Your task to perform on an android device: turn on bluetooth scan Image 0: 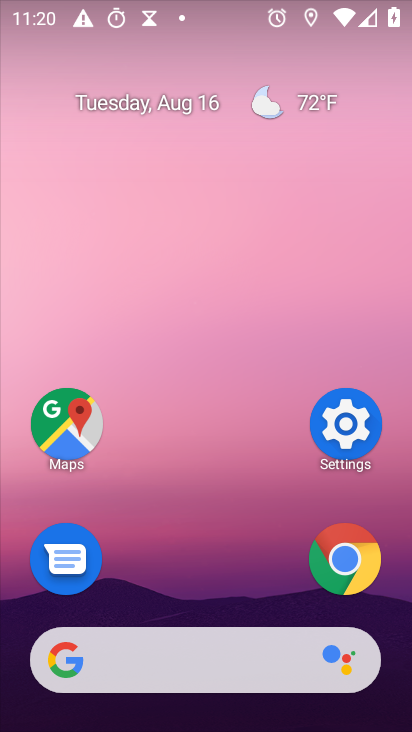
Step 0: click (346, 424)
Your task to perform on an android device: turn on bluetooth scan Image 1: 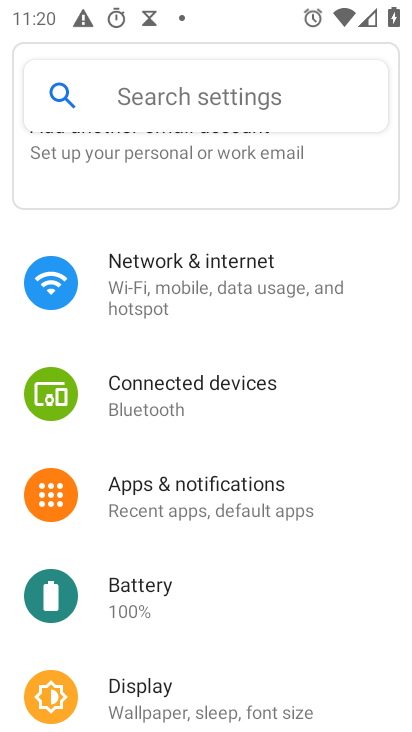
Step 1: drag from (198, 611) to (358, 139)
Your task to perform on an android device: turn on bluetooth scan Image 2: 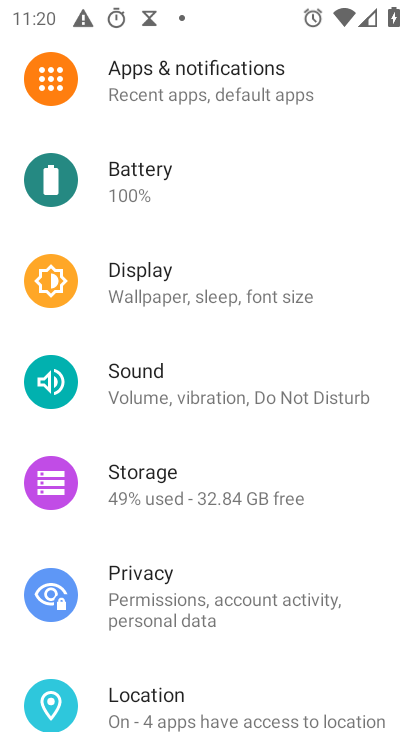
Step 2: drag from (213, 678) to (326, 207)
Your task to perform on an android device: turn on bluetooth scan Image 3: 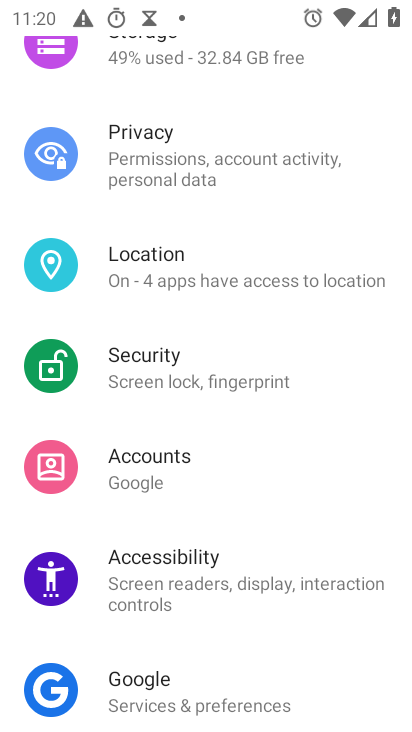
Step 3: click (176, 276)
Your task to perform on an android device: turn on bluetooth scan Image 4: 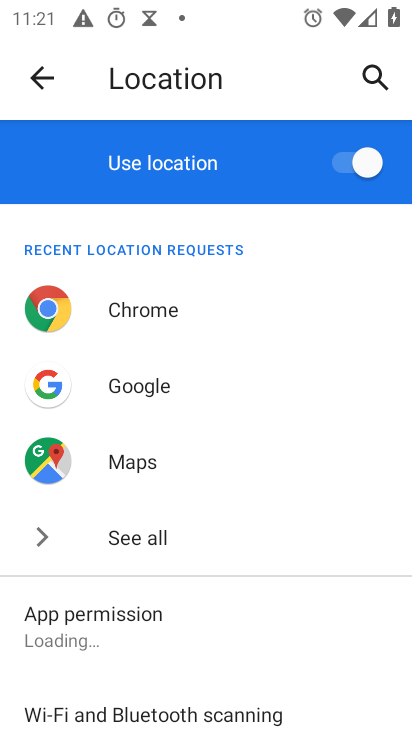
Step 4: drag from (233, 572) to (361, 73)
Your task to perform on an android device: turn on bluetooth scan Image 5: 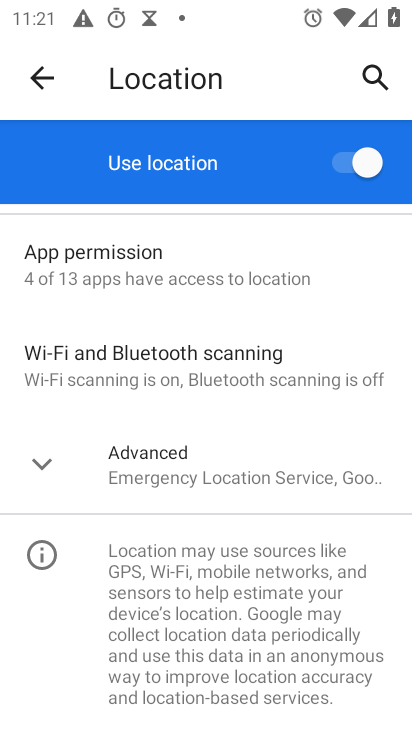
Step 5: click (172, 356)
Your task to perform on an android device: turn on bluetooth scan Image 6: 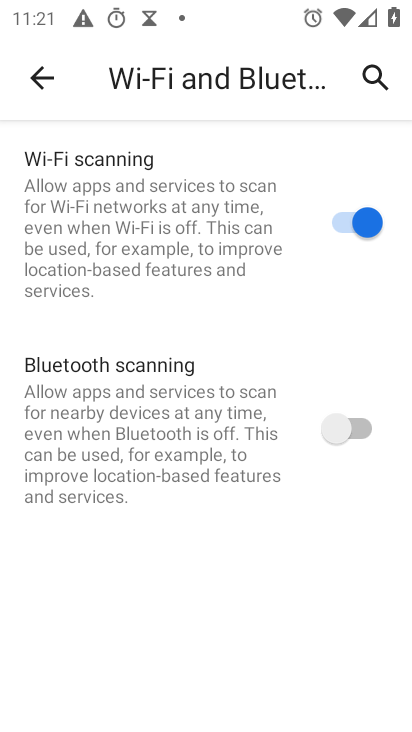
Step 6: click (367, 435)
Your task to perform on an android device: turn on bluetooth scan Image 7: 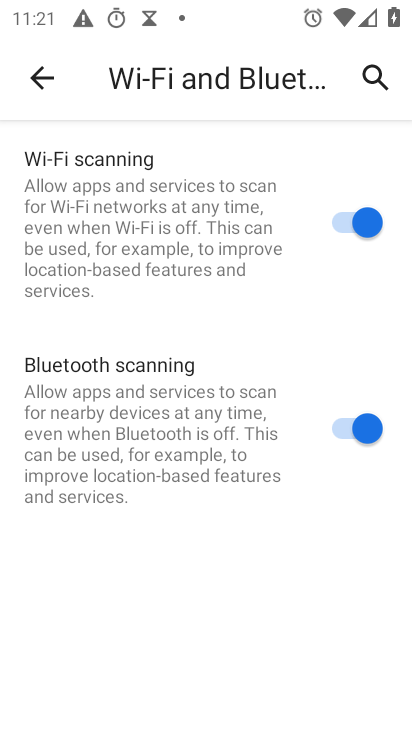
Step 7: task complete